Your task to perform on an android device: toggle location history Image 0: 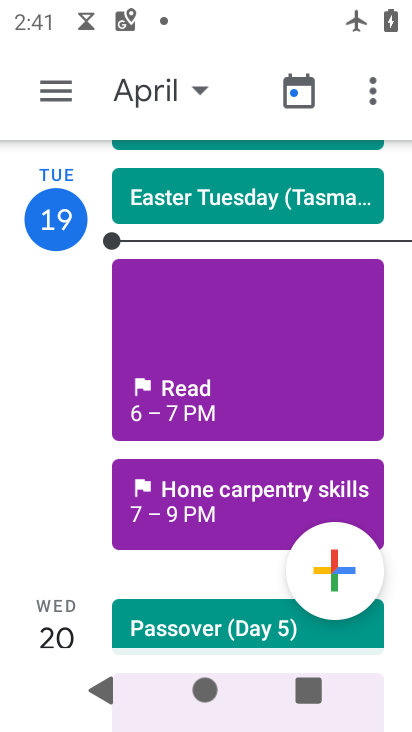
Step 0: press home button
Your task to perform on an android device: toggle location history Image 1: 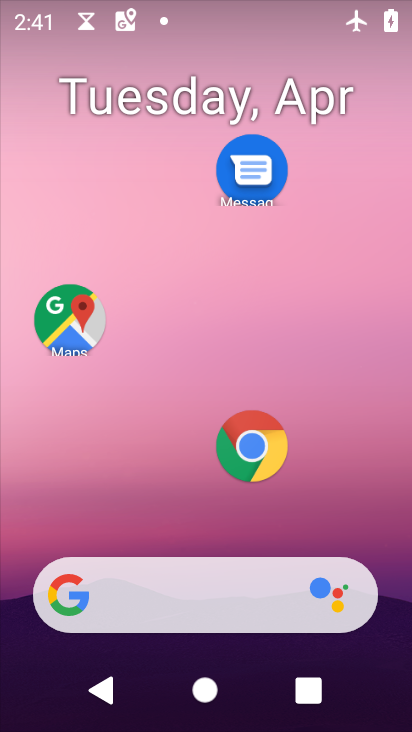
Step 1: drag from (149, 399) to (176, 11)
Your task to perform on an android device: toggle location history Image 2: 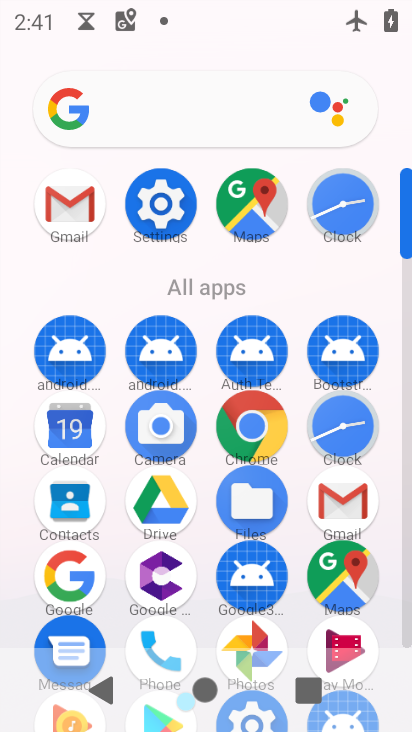
Step 2: click (161, 215)
Your task to perform on an android device: toggle location history Image 3: 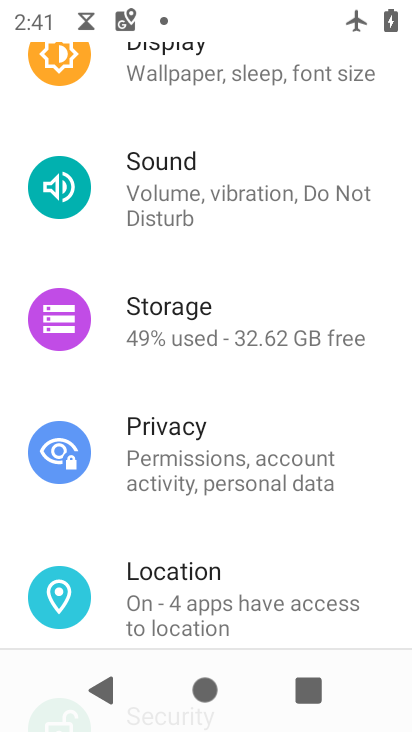
Step 3: click (190, 591)
Your task to perform on an android device: toggle location history Image 4: 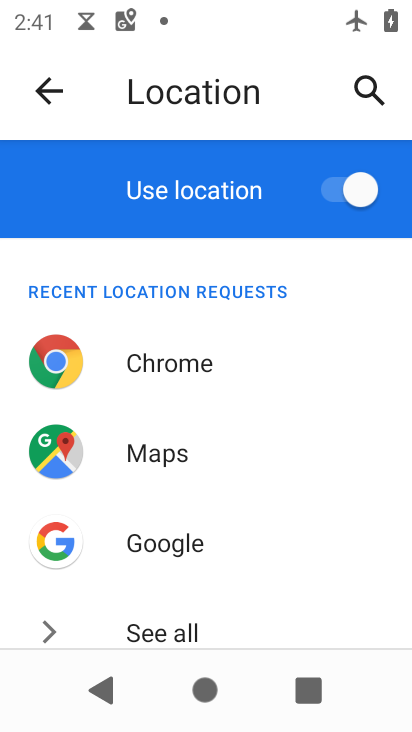
Step 4: drag from (178, 508) to (195, 278)
Your task to perform on an android device: toggle location history Image 5: 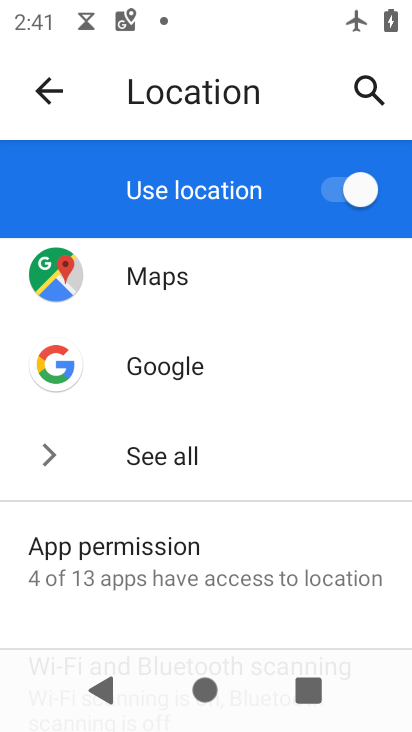
Step 5: drag from (178, 558) to (186, 249)
Your task to perform on an android device: toggle location history Image 6: 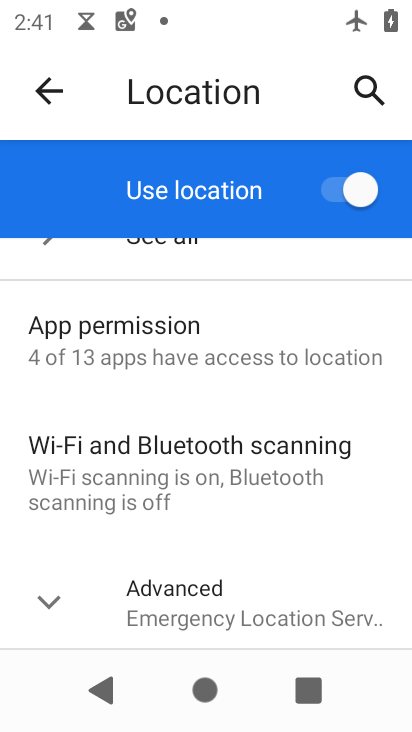
Step 6: click (183, 591)
Your task to perform on an android device: toggle location history Image 7: 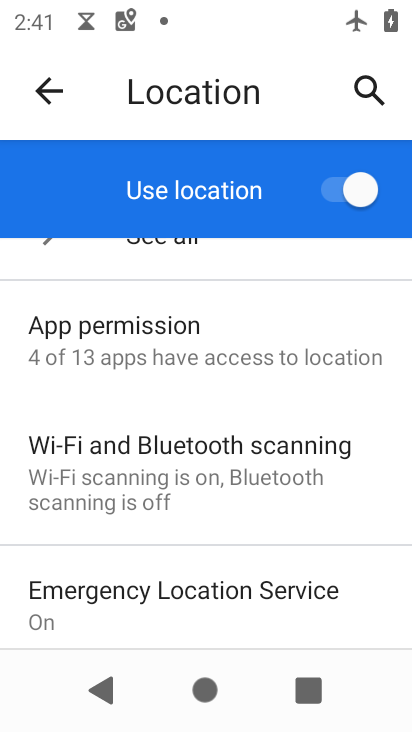
Step 7: drag from (173, 599) to (195, 244)
Your task to perform on an android device: toggle location history Image 8: 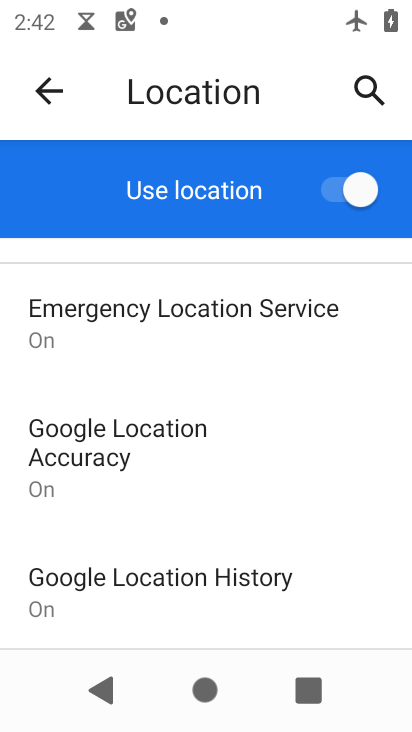
Step 8: click (141, 578)
Your task to perform on an android device: toggle location history Image 9: 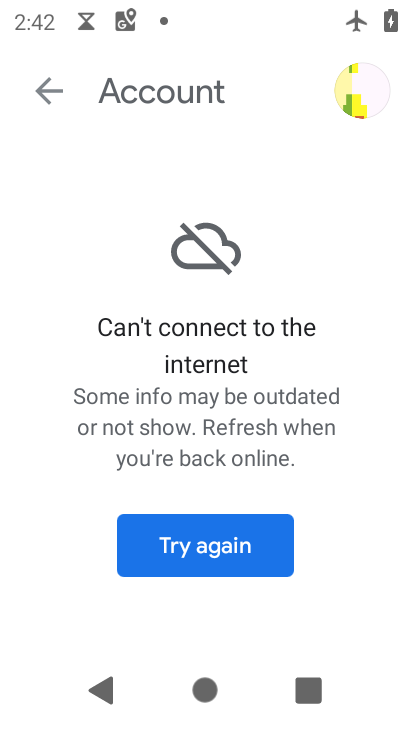
Step 9: click (173, 559)
Your task to perform on an android device: toggle location history Image 10: 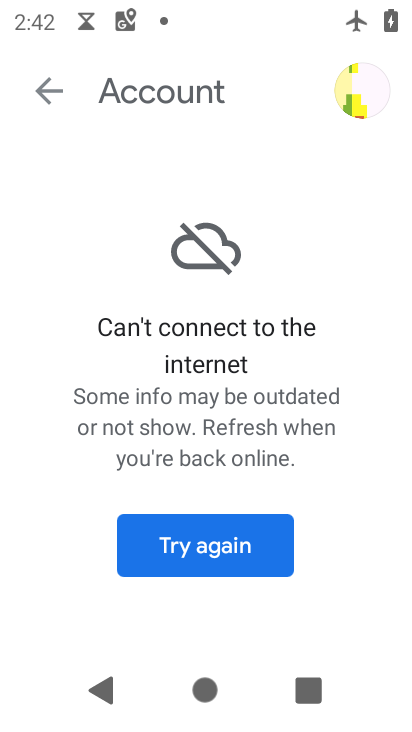
Step 10: task complete